Your task to perform on an android device: turn on the 12-hour format for clock Image 0: 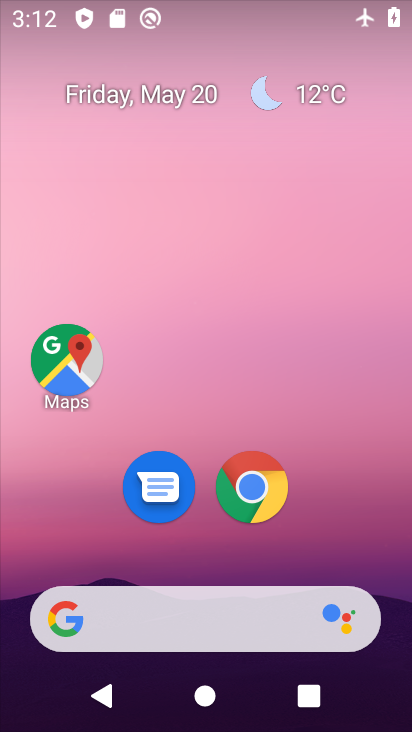
Step 0: drag from (295, 518) to (179, 116)
Your task to perform on an android device: turn on the 12-hour format for clock Image 1: 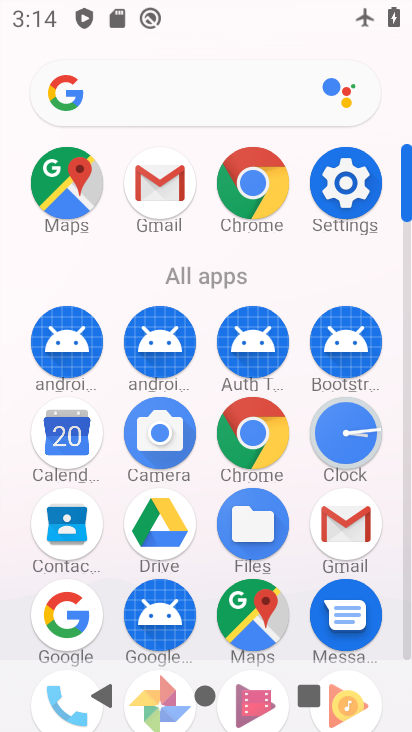
Step 1: click (336, 426)
Your task to perform on an android device: turn on the 12-hour format for clock Image 2: 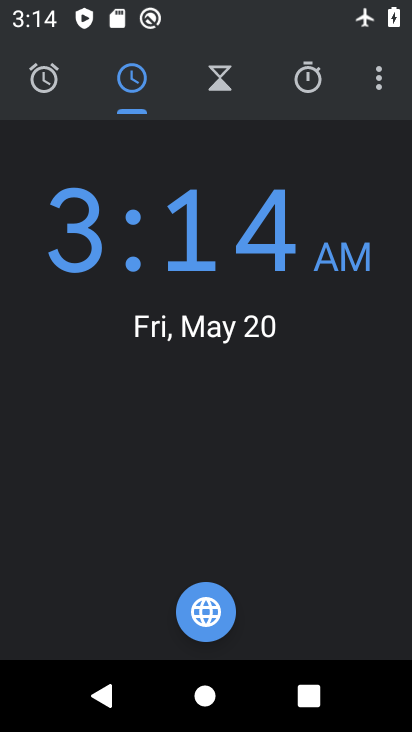
Step 2: click (378, 82)
Your task to perform on an android device: turn on the 12-hour format for clock Image 3: 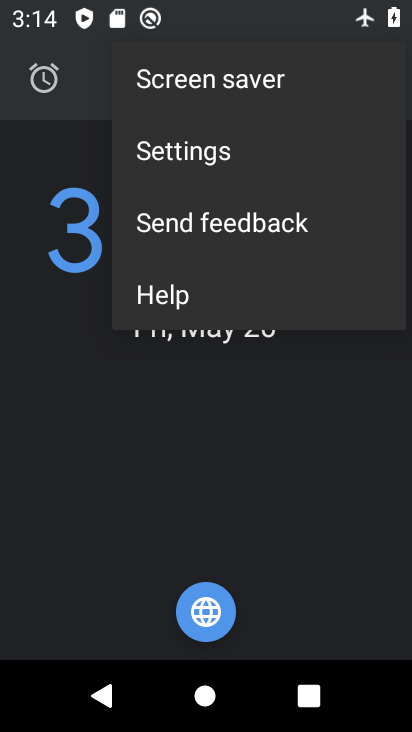
Step 3: click (226, 165)
Your task to perform on an android device: turn on the 12-hour format for clock Image 4: 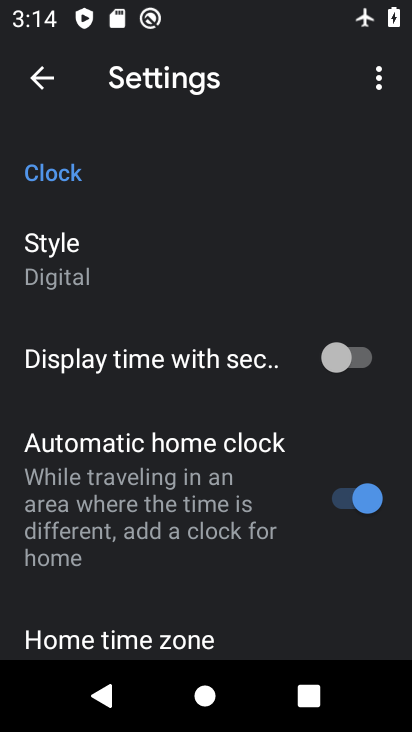
Step 4: drag from (225, 575) to (257, 251)
Your task to perform on an android device: turn on the 12-hour format for clock Image 5: 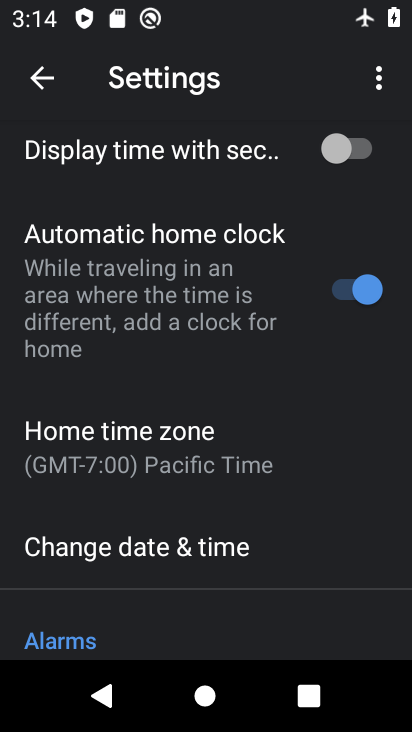
Step 5: click (174, 556)
Your task to perform on an android device: turn on the 12-hour format for clock Image 6: 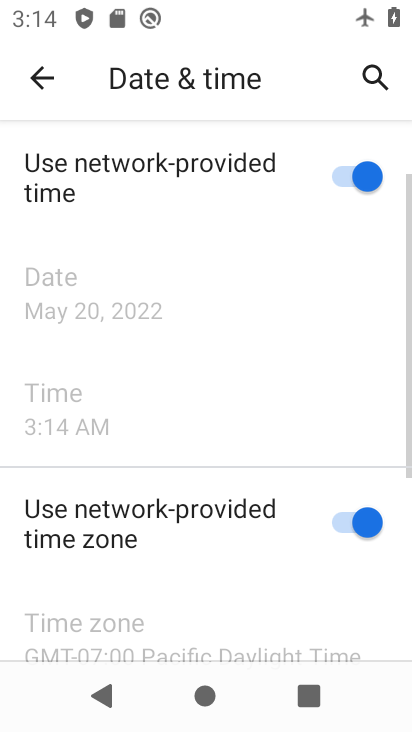
Step 6: drag from (228, 543) to (264, 354)
Your task to perform on an android device: turn on the 12-hour format for clock Image 7: 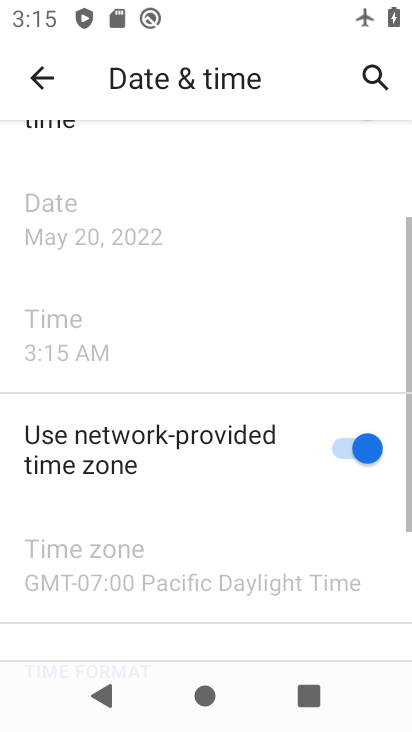
Step 7: drag from (250, 546) to (250, 306)
Your task to perform on an android device: turn on the 12-hour format for clock Image 8: 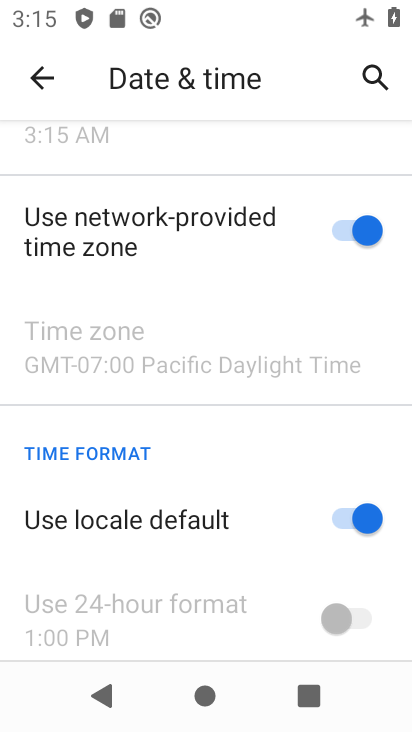
Step 8: click (345, 513)
Your task to perform on an android device: turn on the 12-hour format for clock Image 9: 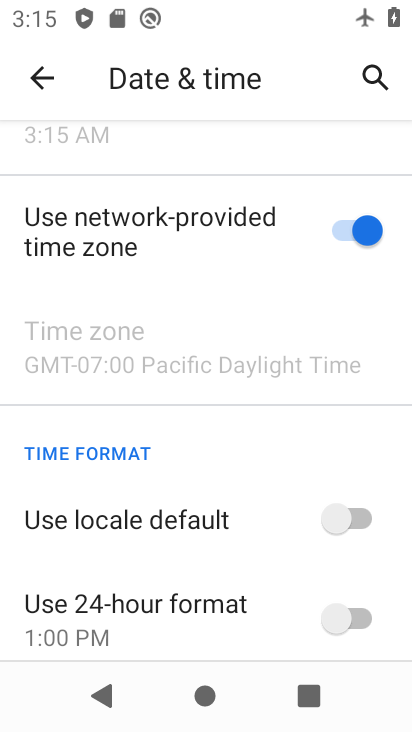
Step 9: click (375, 533)
Your task to perform on an android device: turn on the 12-hour format for clock Image 10: 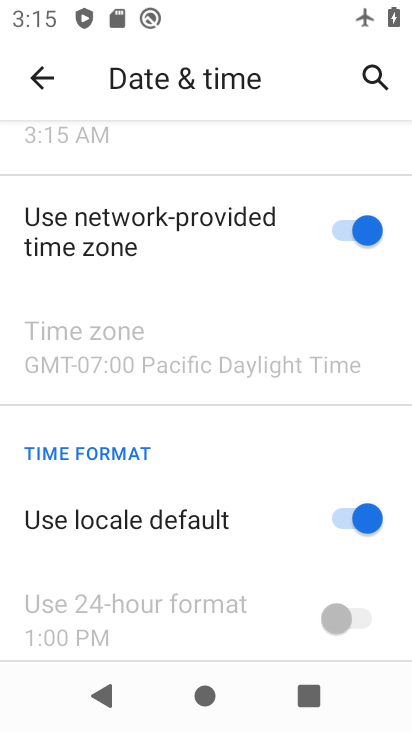
Step 10: task complete